Your task to perform on an android device: turn off sleep mode Image 0: 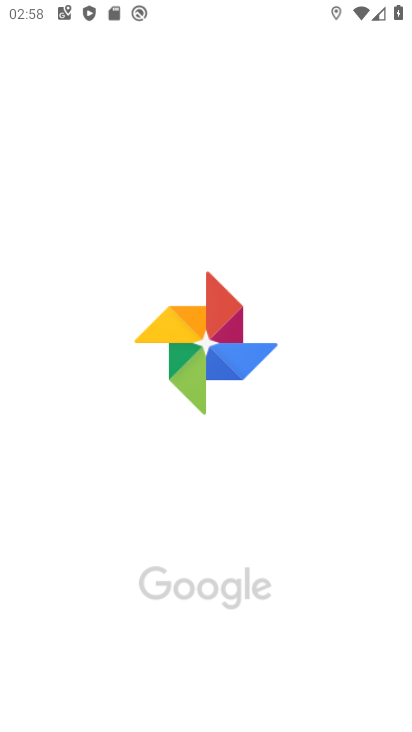
Step 0: drag from (372, 549) to (330, 193)
Your task to perform on an android device: turn off sleep mode Image 1: 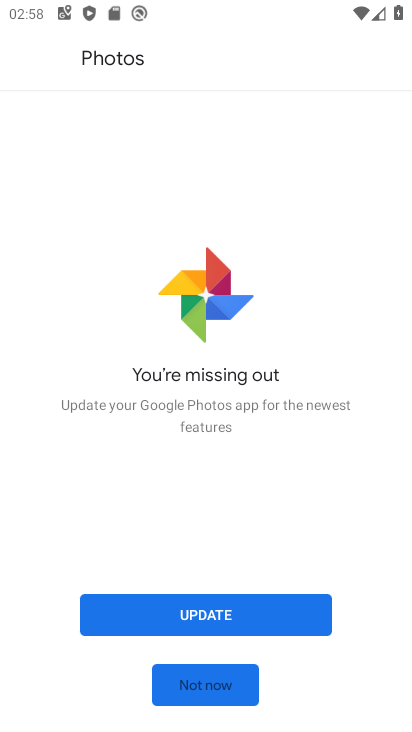
Step 1: press home button
Your task to perform on an android device: turn off sleep mode Image 2: 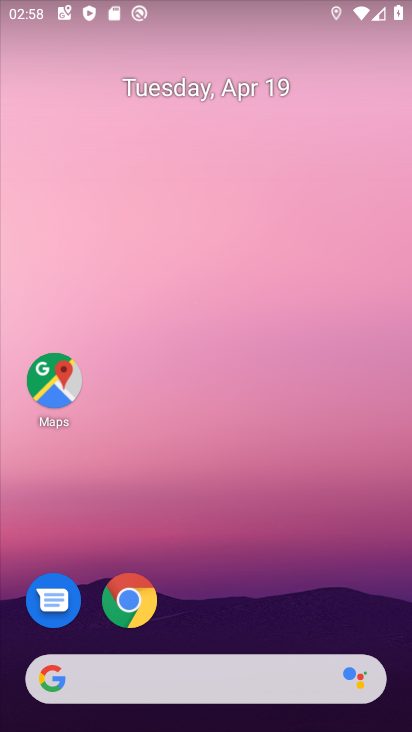
Step 2: drag from (347, 573) to (290, 141)
Your task to perform on an android device: turn off sleep mode Image 3: 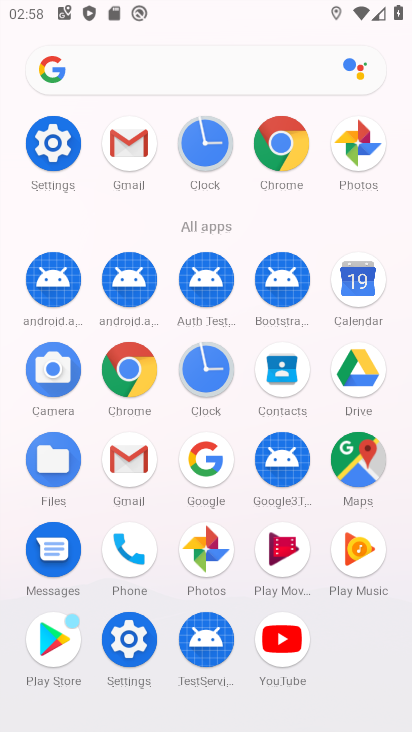
Step 3: click (54, 140)
Your task to perform on an android device: turn off sleep mode Image 4: 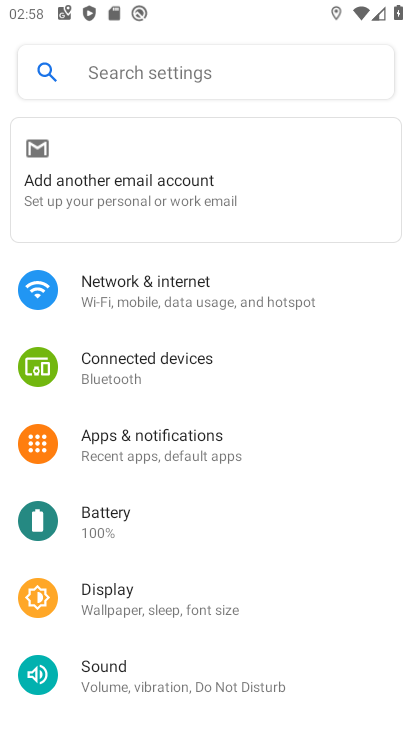
Step 4: drag from (277, 631) to (269, 352)
Your task to perform on an android device: turn off sleep mode Image 5: 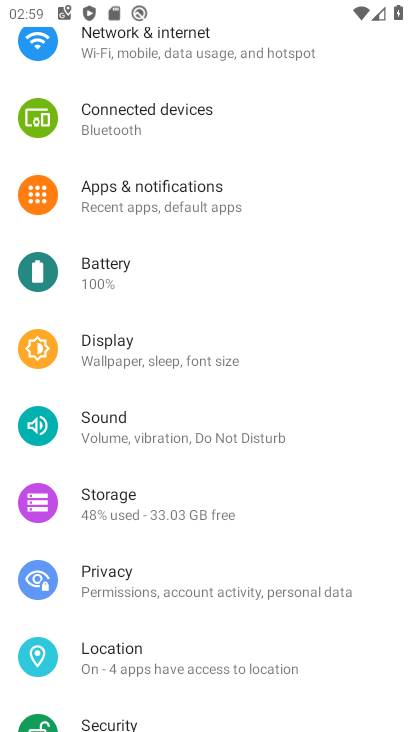
Step 5: click (251, 358)
Your task to perform on an android device: turn off sleep mode Image 6: 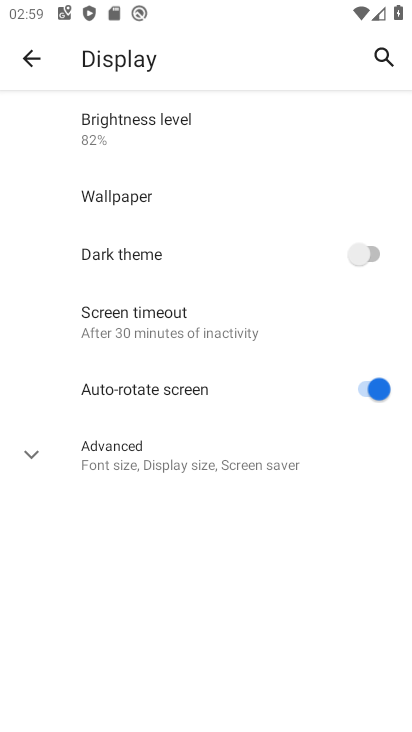
Step 6: click (266, 461)
Your task to perform on an android device: turn off sleep mode Image 7: 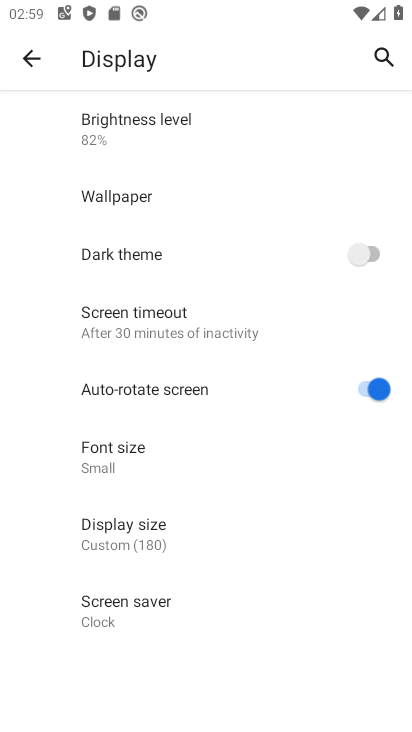
Step 7: task complete